Your task to perform on an android device: toggle data saver in the chrome app Image 0: 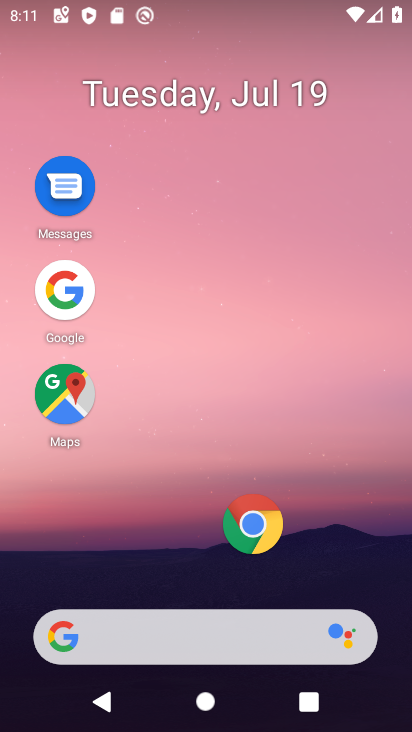
Step 0: click (255, 540)
Your task to perform on an android device: toggle data saver in the chrome app Image 1: 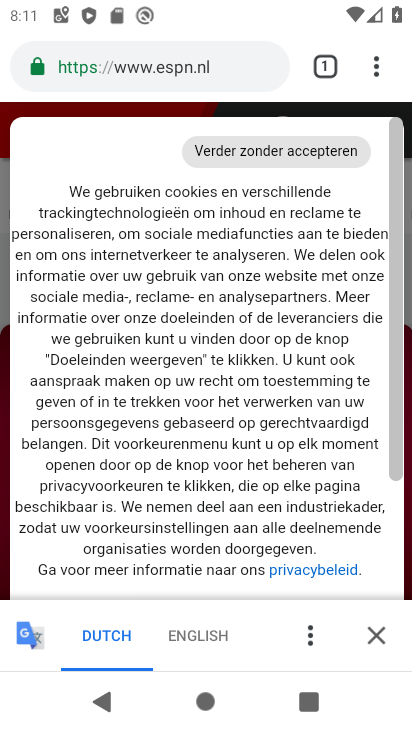
Step 1: click (379, 78)
Your task to perform on an android device: toggle data saver in the chrome app Image 2: 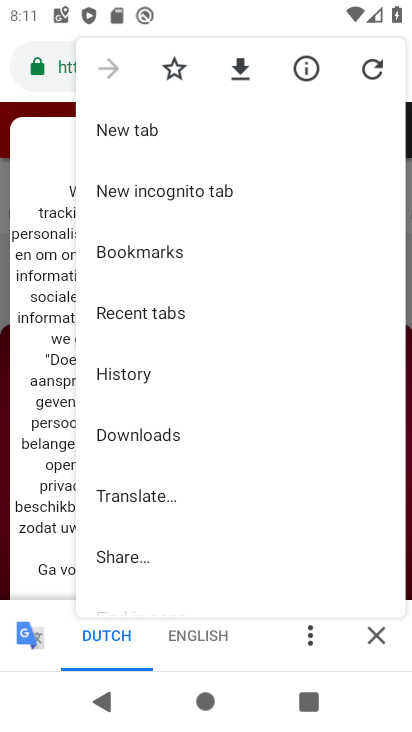
Step 2: drag from (231, 491) to (191, 156)
Your task to perform on an android device: toggle data saver in the chrome app Image 3: 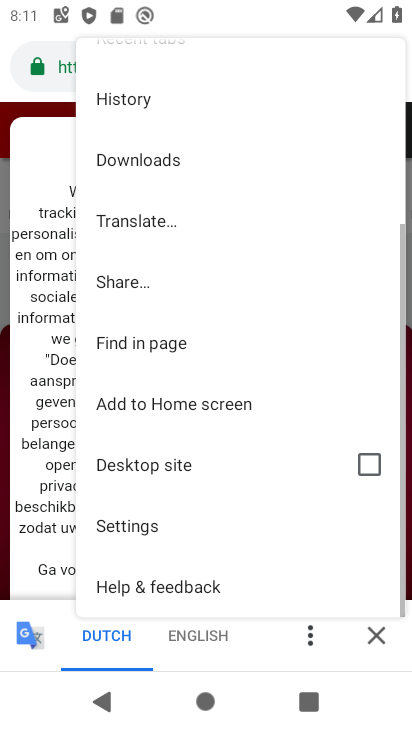
Step 3: click (130, 525)
Your task to perform on an android device: toggle data saver in the chrome app Image 4: 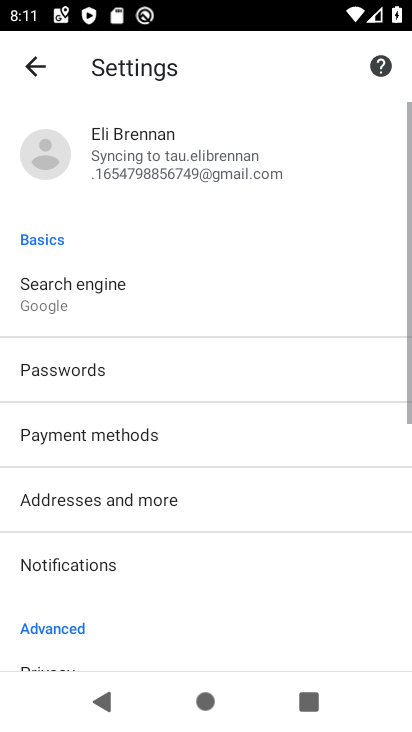
Step 4: drag from (130, 525) to (80, 100)
Your task to perform on an android device: toggle data saver in the chrome app Image 5: 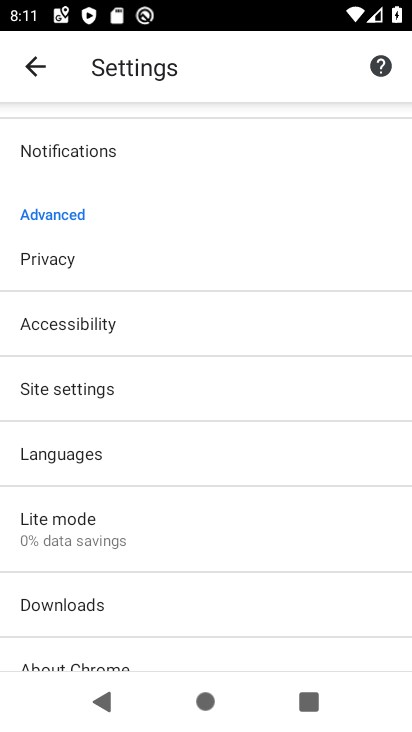
Step 5: click (69, 545)
Your task to perform on an android device: toggle data saver in the chrome app Image 6: 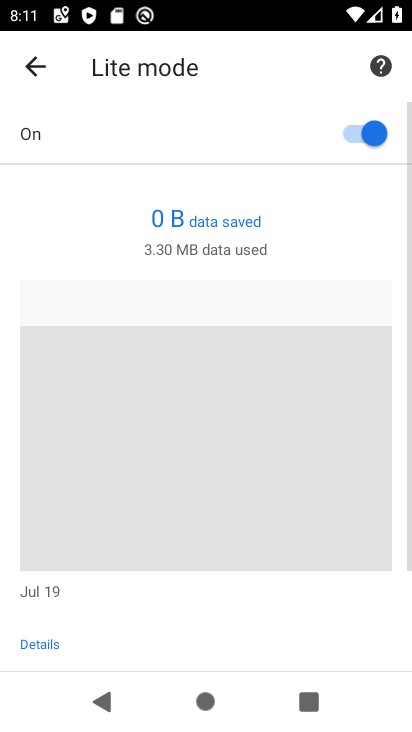
Step 6: click (360, 129)
Your task to perform on an android device: toggle data saver in the chrome app Image 7: 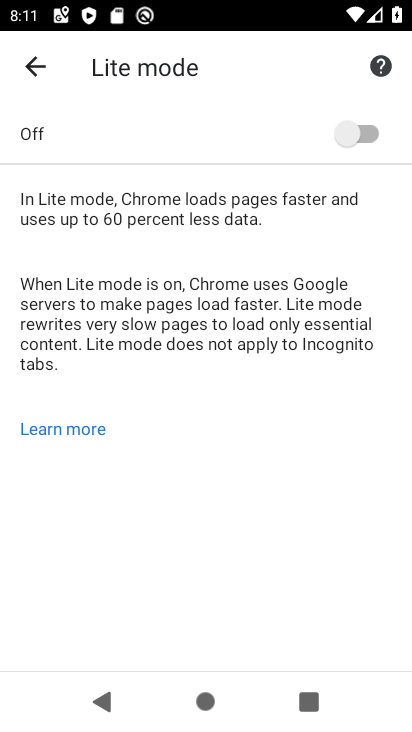
Step 7: task complete